Your task to perform on an android device: change notification settings in the gmail app Image 0: 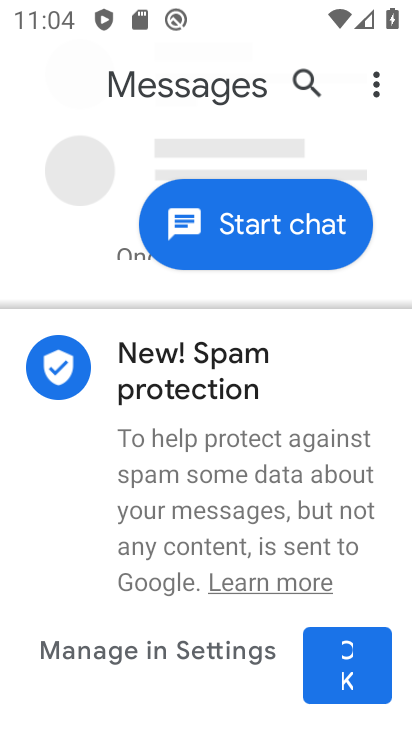
Step 0: press home button
Your task to perform on an android device: change notification settings in the gmail app Image 1: 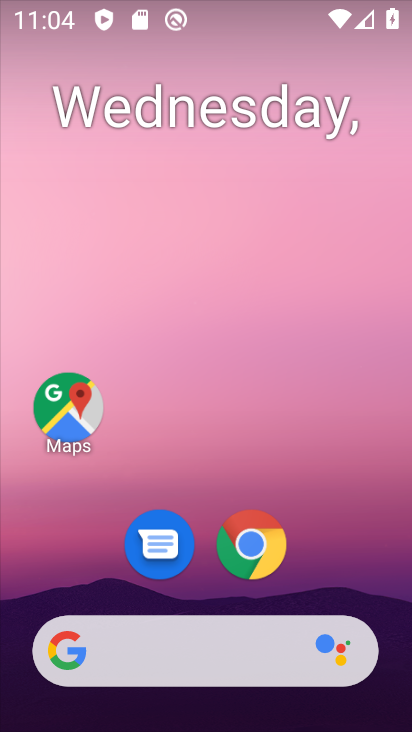
Step 1: drag from (196, 490) to (234, 8)
Your task to perform on an android device: change notification settings in the gmail app Image 2: 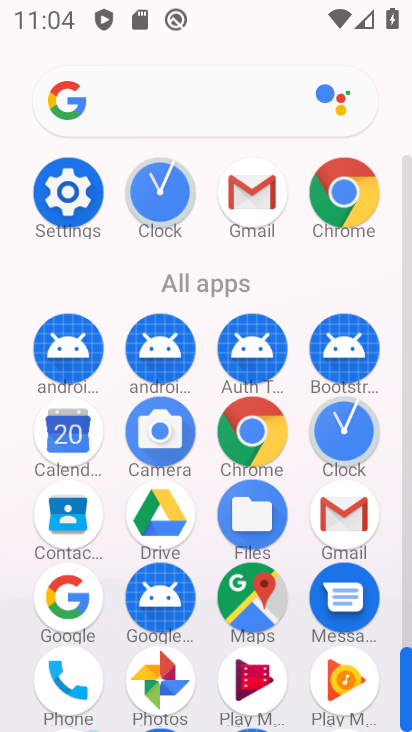
Step 2: click (338, 527)
Your task to perform on an android device: change notification settings in the gmail app Image 3: 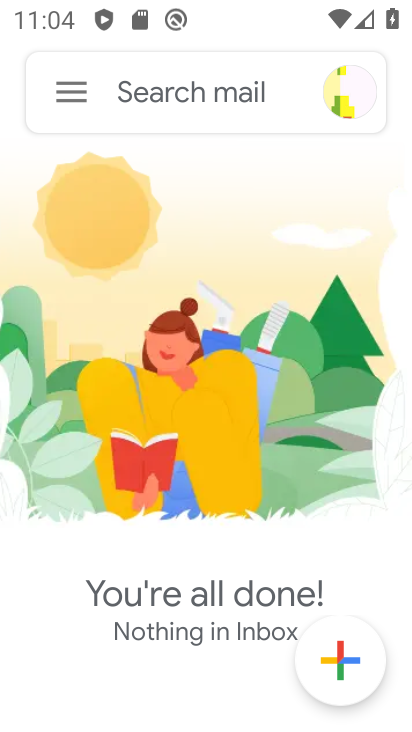
Step 3: click (64, 102)
Your task to perform on an android device: change notification settings in the gmail app Image 4: 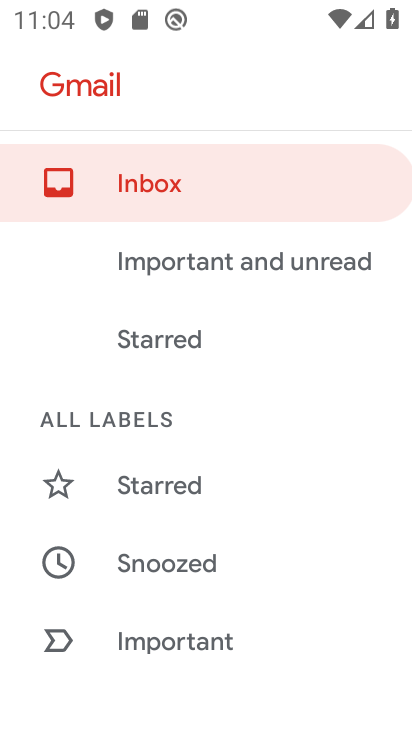
Step 4: drag from (201, 561) to (232, 145)
Your task to perform on an android device: change notification settings in the gmail app Image 5: 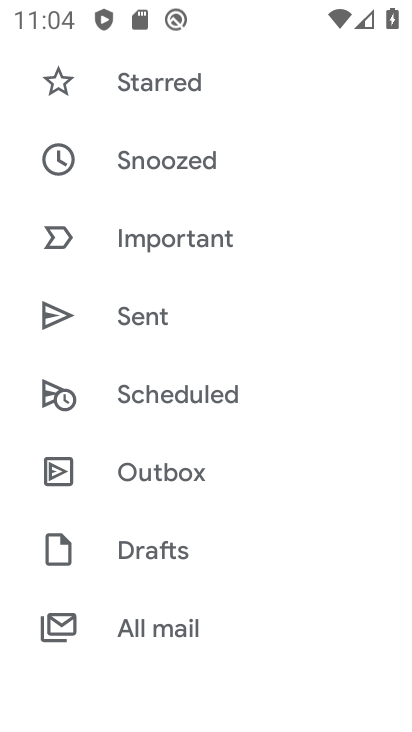
Step 5: drag from (212, 586) to (247, 223)
Your task to perform on an android device: change notification settings in the gmail app Image 6: 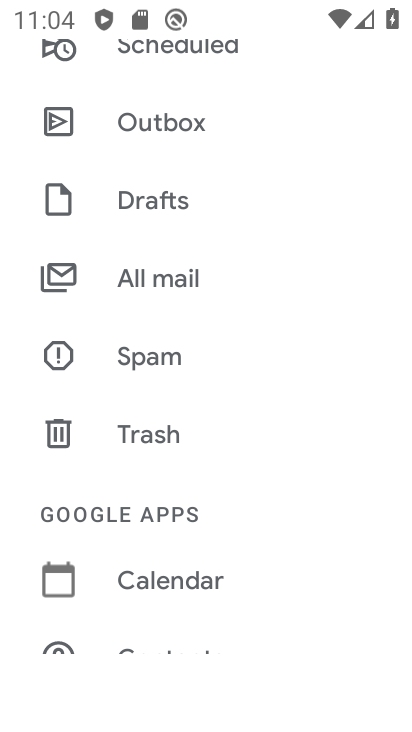
Step 6: drag from (198, 545) to (214, 179)
Your task to perform on an android device: change notification settings in the gmail app Image 7: 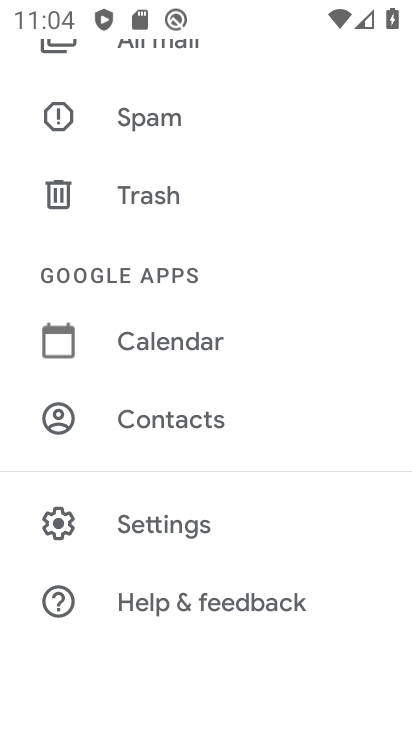
Step 7: click (167, 520)
Your task to perform on an android device: change notification settings in the gmail app Image 8: 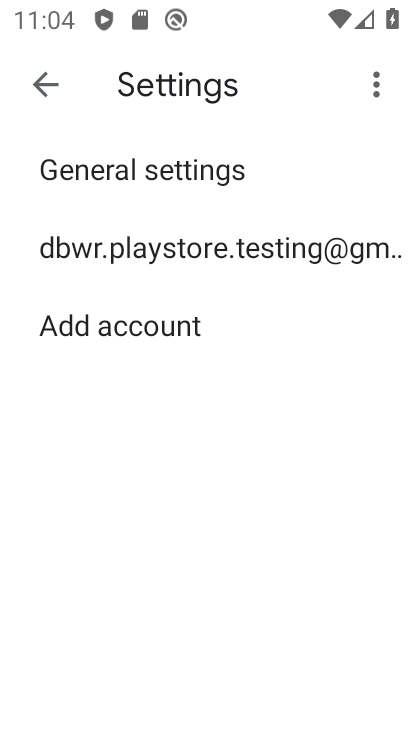
Step 8: click (122, 169)
Your task to perform on an android device: change notification settings in the gmail app Image 9: 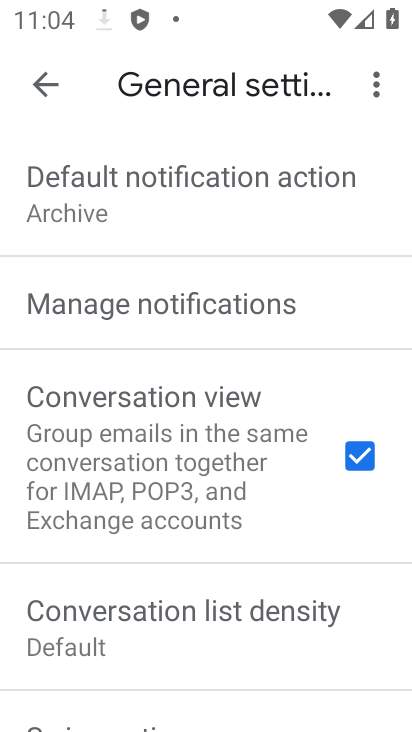
Step 9: click (189, 307)
Your task to perform on an android device: change notification settings in the gmail app Image 10: 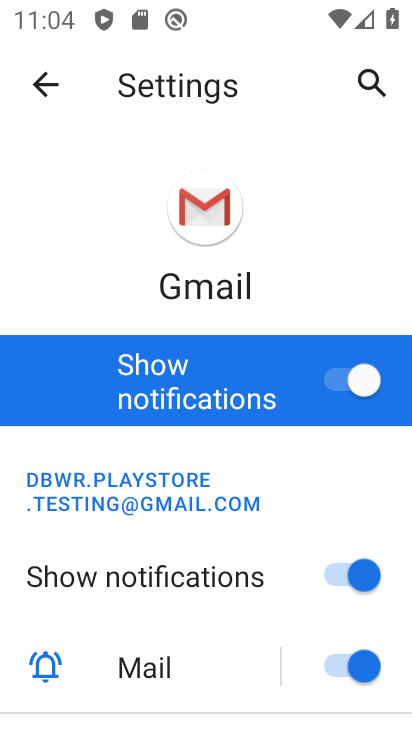
Step 10: click (363, 389)
Your task to perform on an android device: change notification settings in the gmail app Image 11: 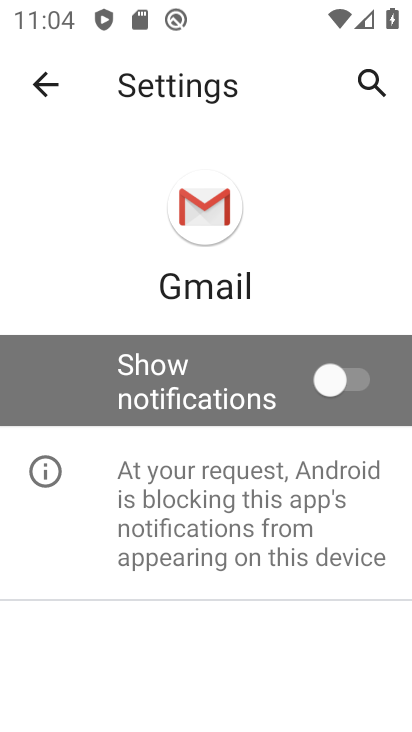
Step 11: task complete